Your task to perform on an android device: Is it going to rain this weekend? Image 0: 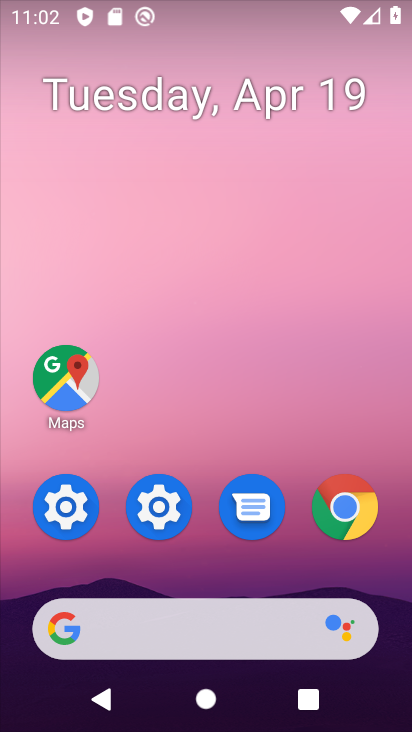
Step 0: drag from (259, 582) to (215, 468)
Your task to perform on an android device: Is it going to rain this weekend? Image 1: 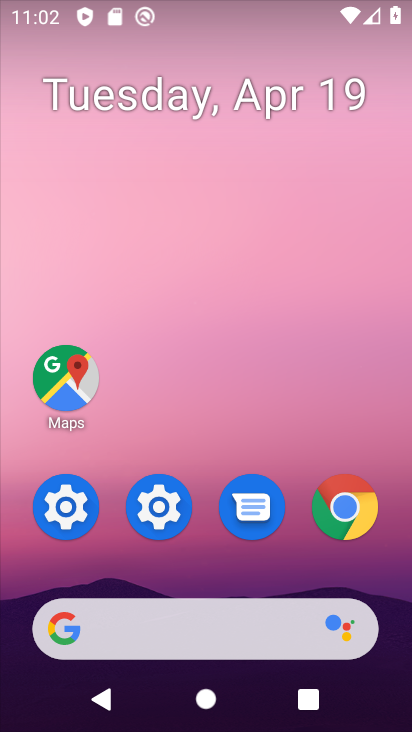
Step 1: drag from (29, 148) to (96, 719)
Your task to perform on an android device: Is it going to rain this weekend? Image 2: 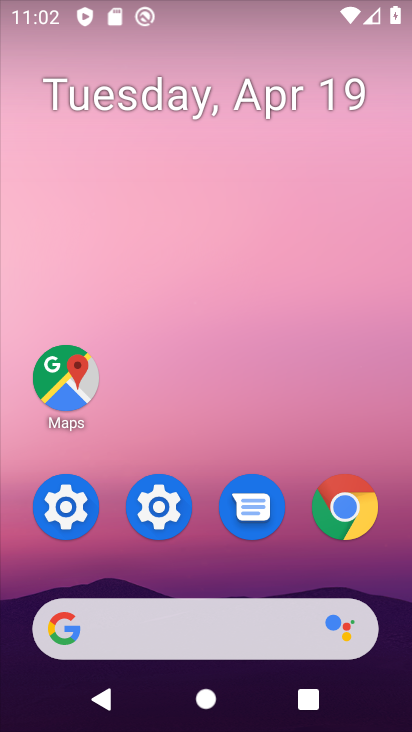
Step 2: drag from (21, 159) to (385, 378)
Your task to perform on an android device: Is it going to rain this weekend? Image 3: 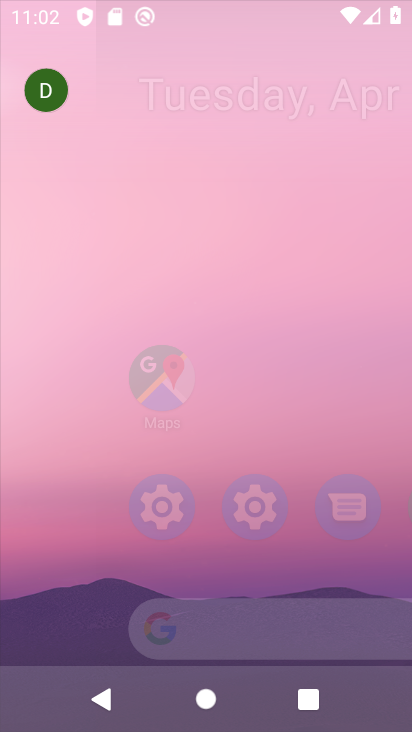
Step 3: drag from (13, 157) to (384, 295)
Your task to perform on an android device: Is it going to rain this weekend? Image 4: 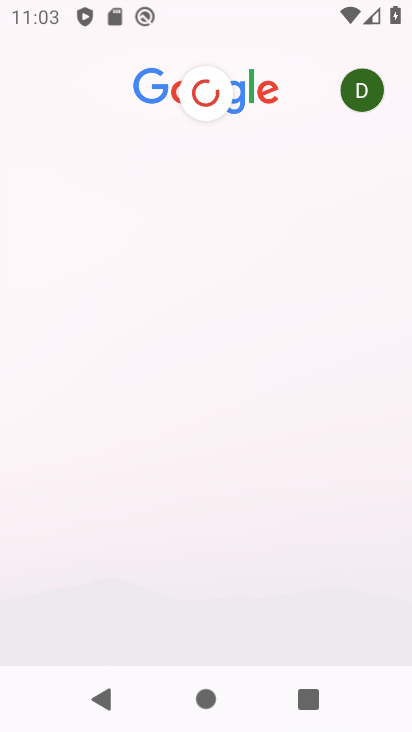
Step 4: drag from (289, 195) to (357, 182)
Your task to perform on an android device: Is it going to rain this weekend? Image 5: 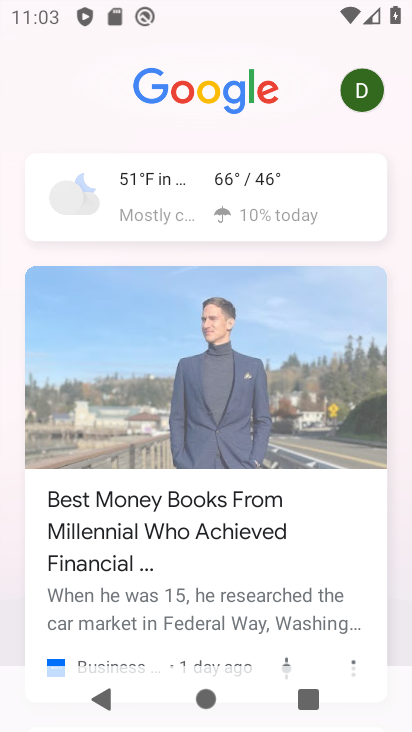
Step 5: drag from (351, 349) to (354, 414)
Your task to perform on an android device: Is it going to rain this weekend? Image 6: 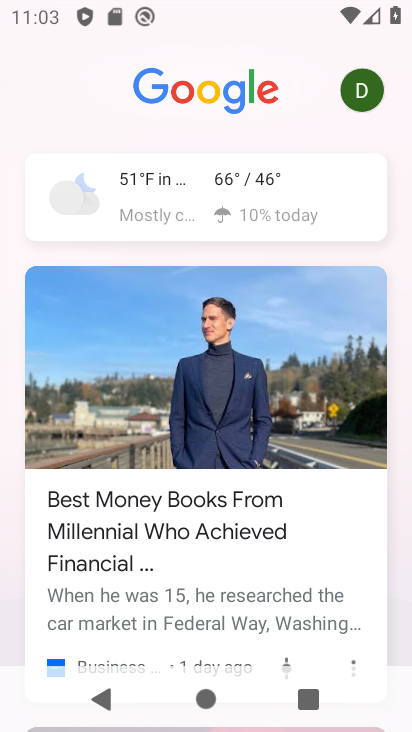
Step 6: click (239, 180)
Your task to perform on an android device: Is it going to rain this weekend? Image 7: 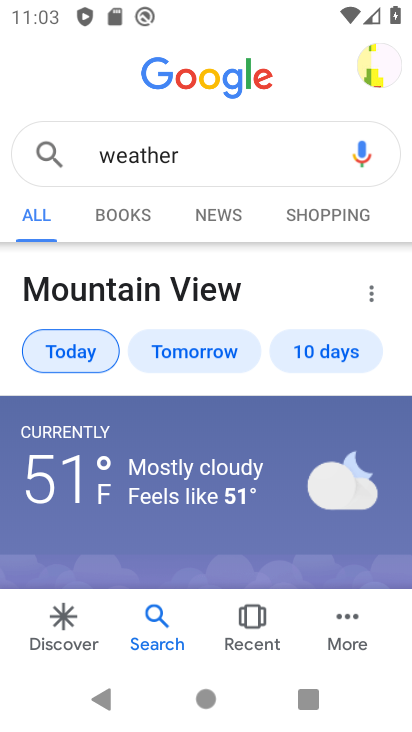
Step 7: click (190, 341)
Your task to perform on an android device: Is it going to rain this weekend? Image 8: 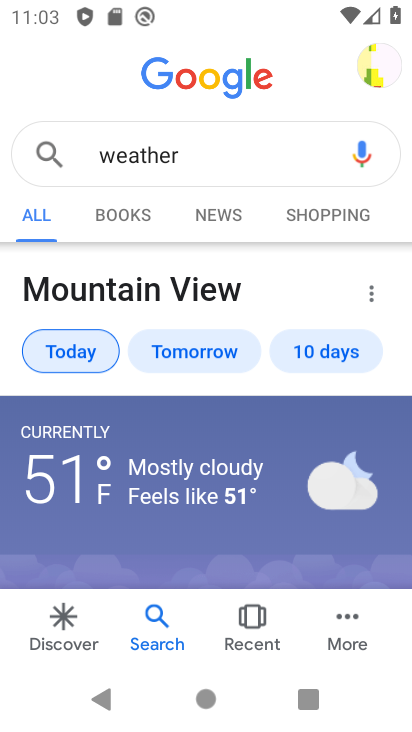
Step 8: click (190, 342)
Your task to perform on an android device: Is it going to rain this weekend? Image 9: 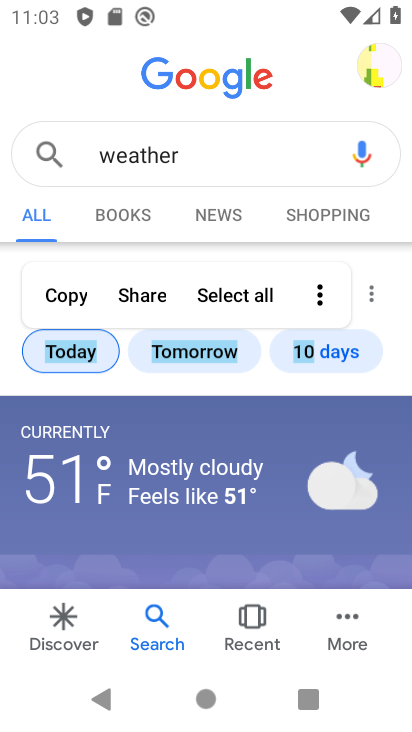
Step 9: click (195, 345)
Your task to perform on an android device: Is it going to rain this weekend? Image 10: 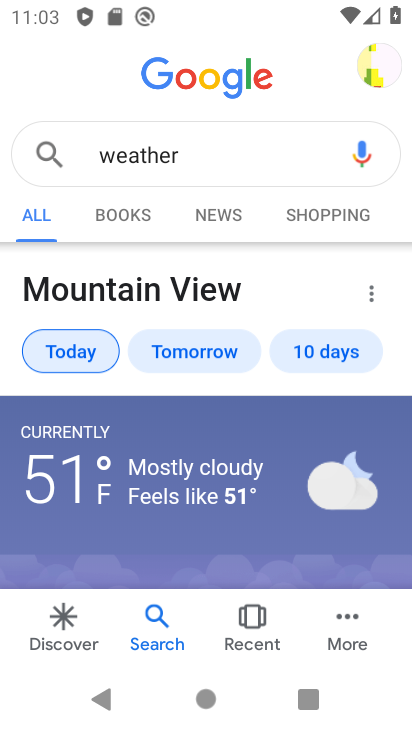
Step 10: drag from (196, 350) to (183, 409)
Your task to perform on an android device: Is it going to rain this weekend? Image 11: 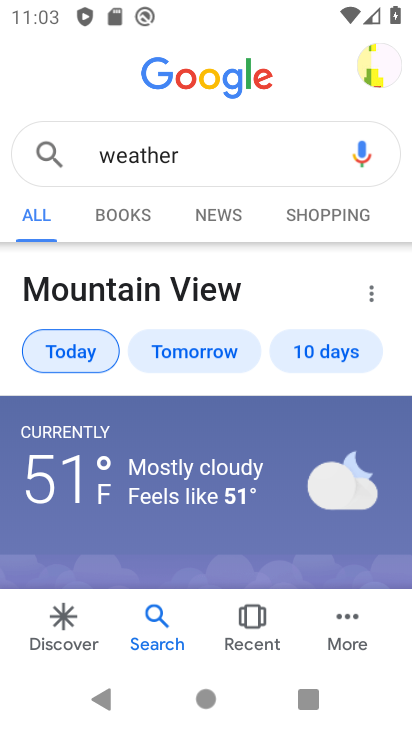
Step 11: drag from (180, 454) to (224, 274)
Your task to perform on an android device: Is it going to rain this weekend? Image 12: 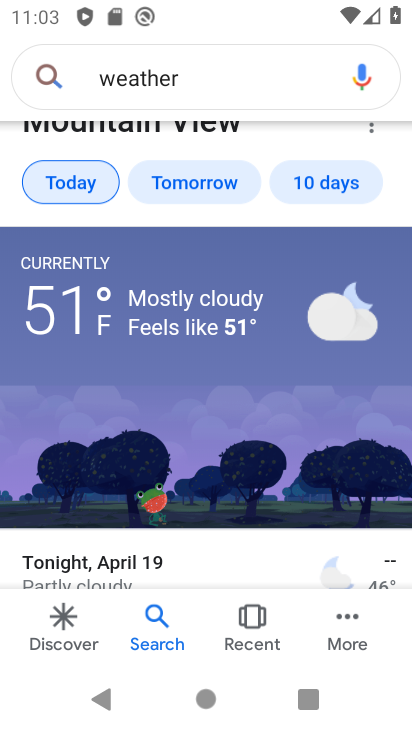
Step 12: drag from (163, 504) to (181, 373)
Your task to perform on an android device: Is it going to rain this weekend? Image 13: 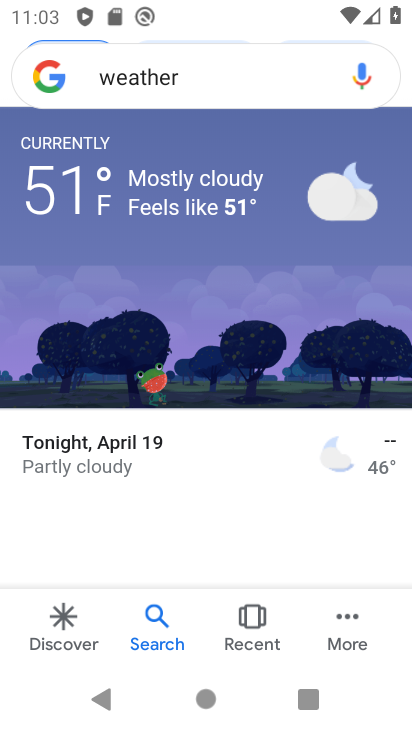
Step 13: drag from (159, 524) to (205, 267)
Your task to perform on an android device: Is it going to rain this weekend? Image 14: 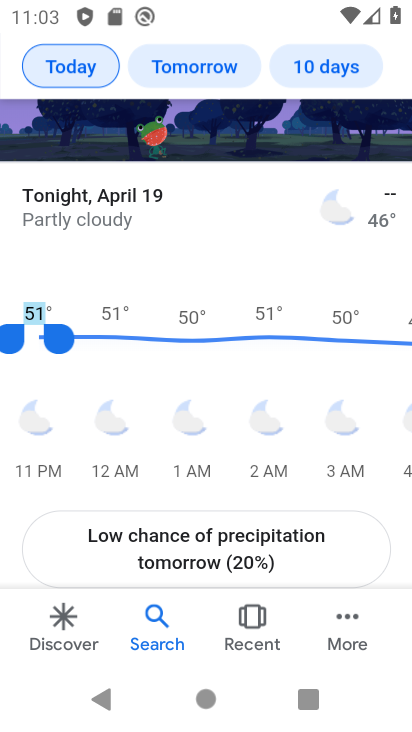
Step 14: drag from (189, 220) to (195, 473)
Your task to perform on an android device: Is it going to rain this weekend? Image 15: 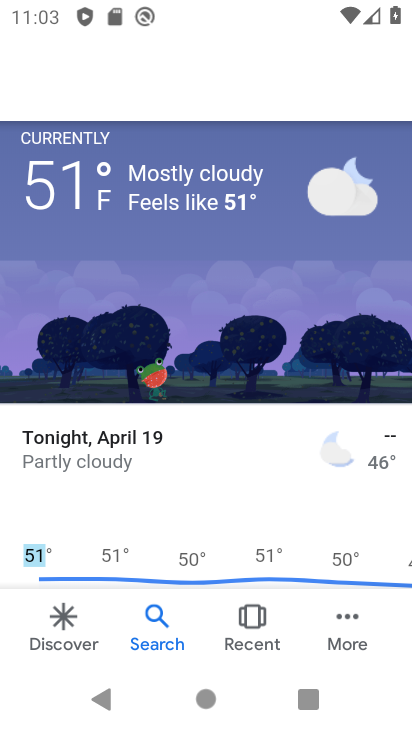
Step 15: drag from (157, 249) to (230, 563)
Your task to perform on an android device: Is it going to rain this weekend? Image 16: 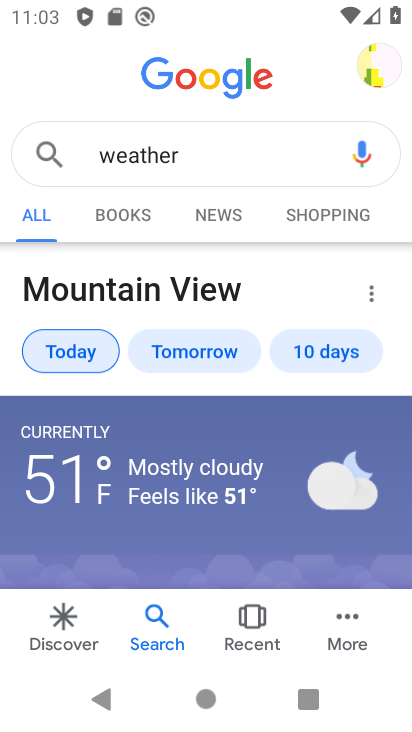
Step 16: click (179, 345)
Your task to perform on an android device: Is it going to rain this weekend? Image 17: 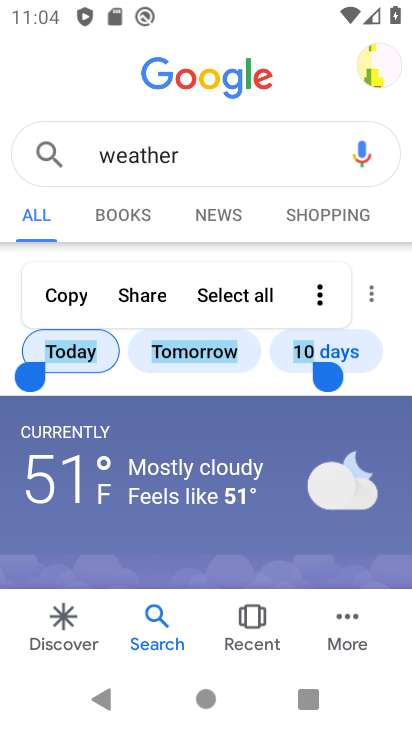
Step 17: task complete